Your task to perform on an android device: check google app version Image 0: 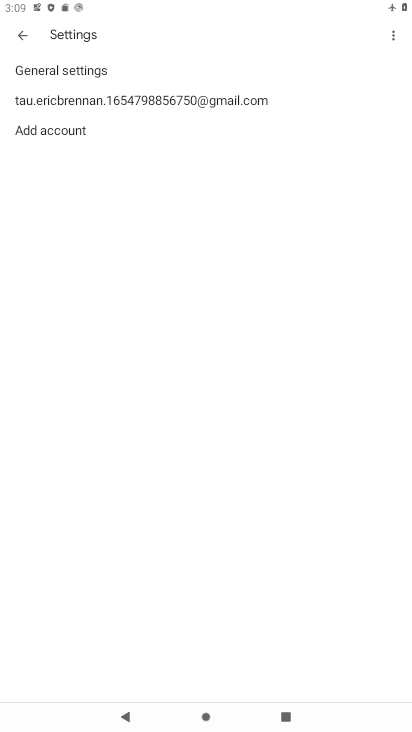
Step 0: press home button
Your task to perform on an android device: check google app version Image 1: 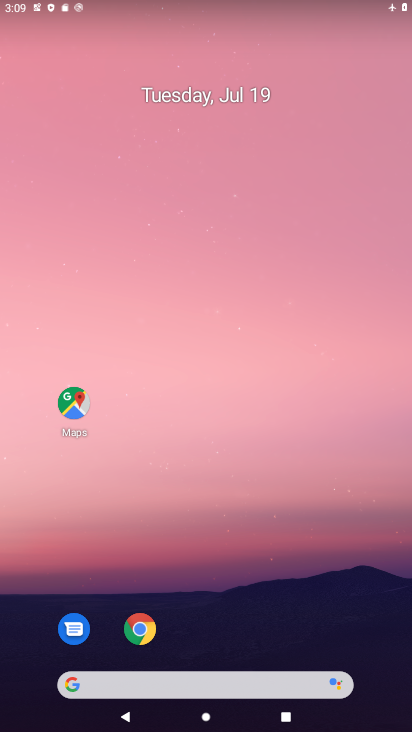
Step 1: drag from (189, 680) to (169, 175)
Your task to perform on an android device: check google app version Image 2: 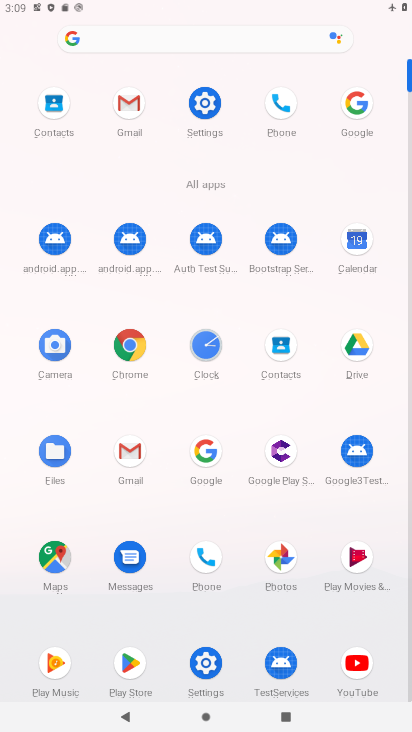
Step 2: click (212, 459)
Your task to perform on an android device: check google app version Image 3: 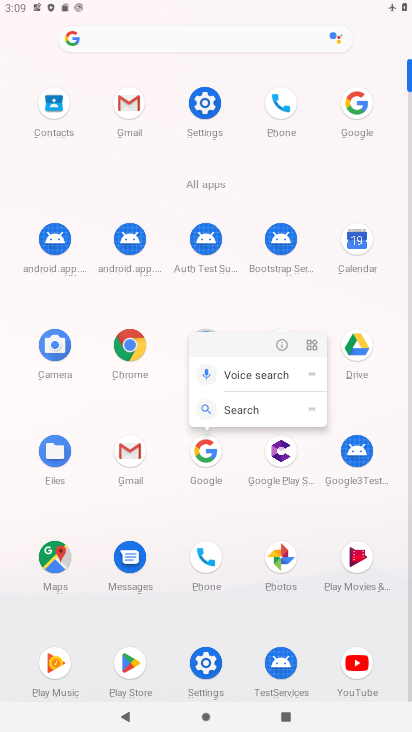
Step 3: click (283, 348)
Your task to perform on an android device: check google app version Image 4: 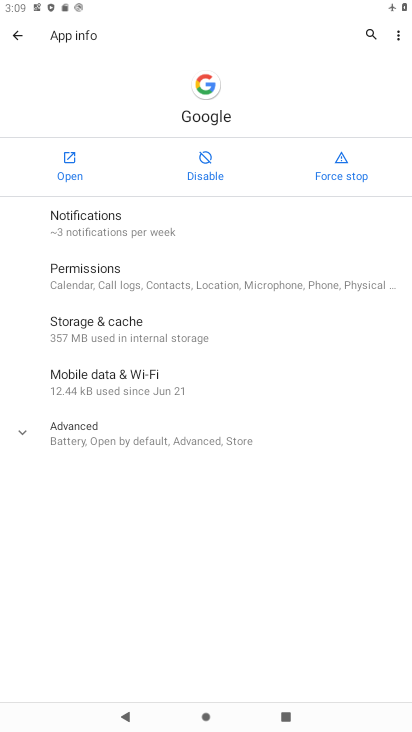
Step 4: click (124, 431)
Your task to perform on an android device: check google app version Image 5: 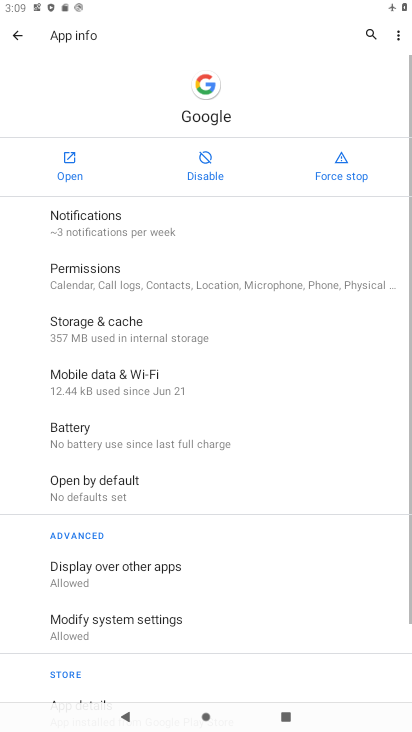
Step 5: task complete